Your task to perform on an android device: What's on my calendar today? Image 0: 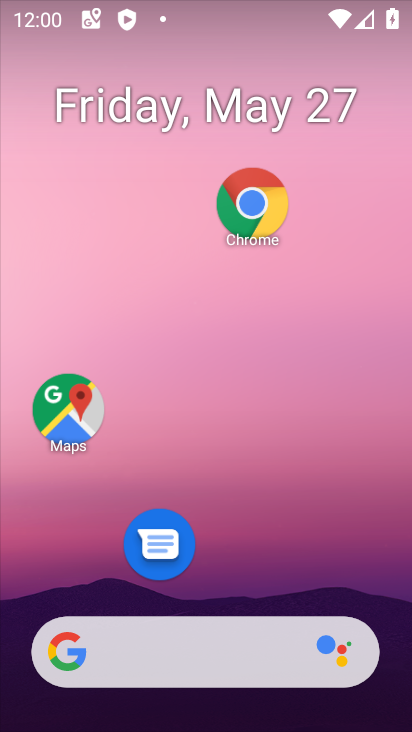
Step 0: click (3, 565)
Your task to perform on an android device: What's on my calendar today? Image 1: 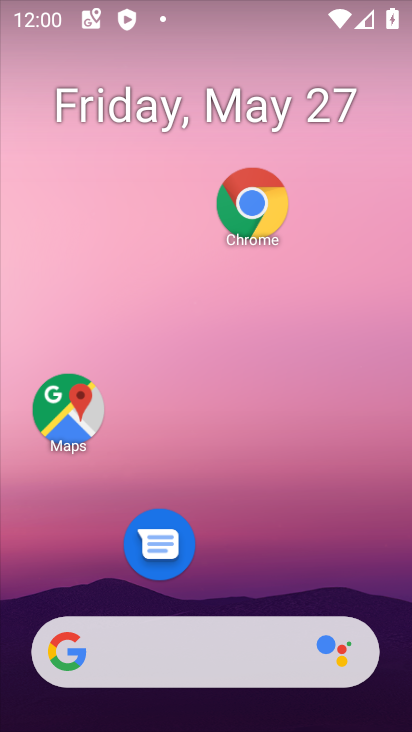
Step 1: drag from (234, 417) to (238, 56)
Your task to perform on an android device: What's on my calendar today? Image 2: 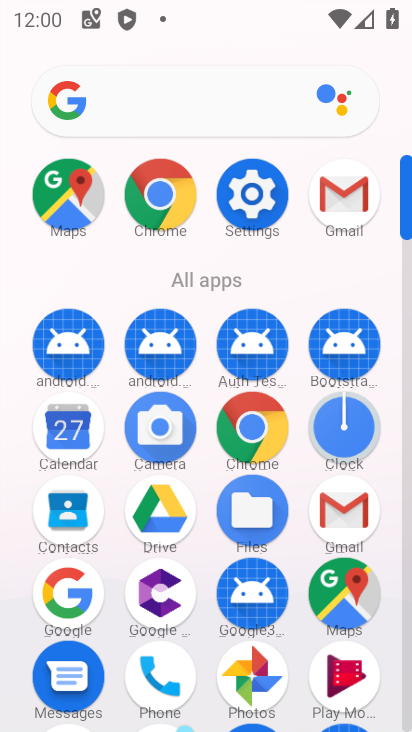
Step 2: click (80, 422)
Your task to perform on an android device: What's on my calendar today? Image 3: 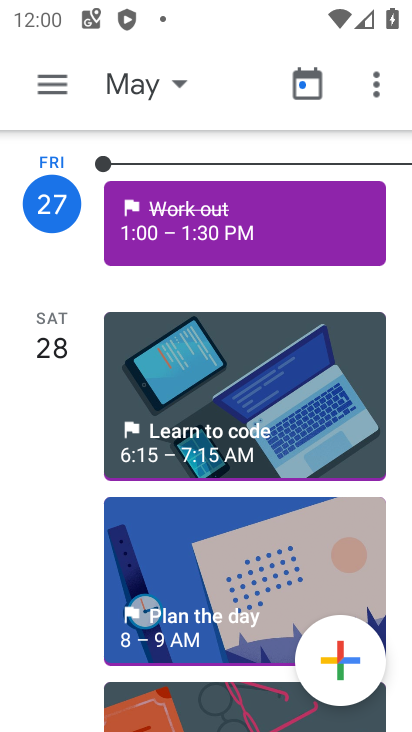
Step 3: press home button
Your task to perform on an android device: What's on my calendar today? Image 4: 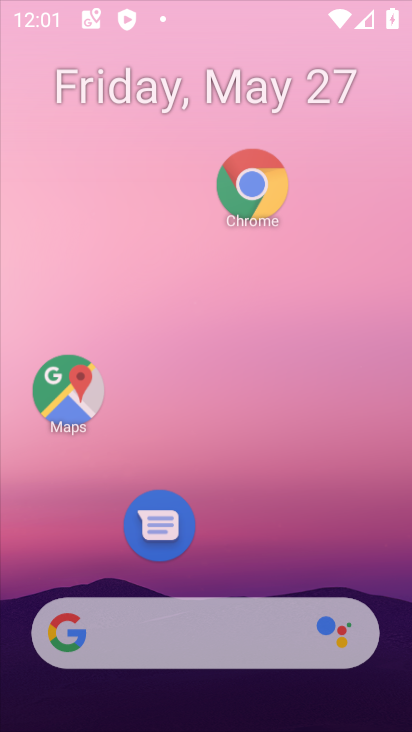
Step 4: drag from (318, 669) to (348, 199)
Your task to perform on an android device: What's on my calendar today? Image 5: 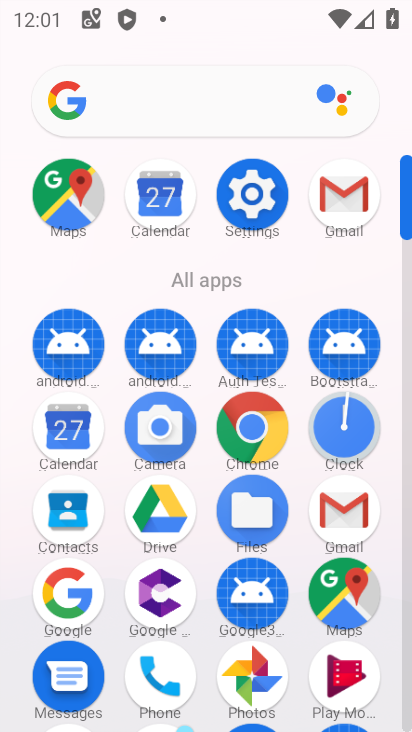
Step 5: click (79, 428)
Your task to perform on an android device: What's on my calendar today? Image 6: 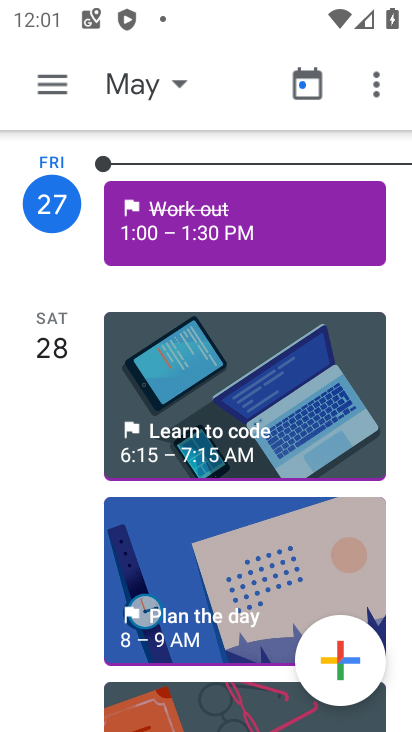
Step 6: click (151, 76)
Your task to perform on an android device: What's on my calendar today? Image 7: 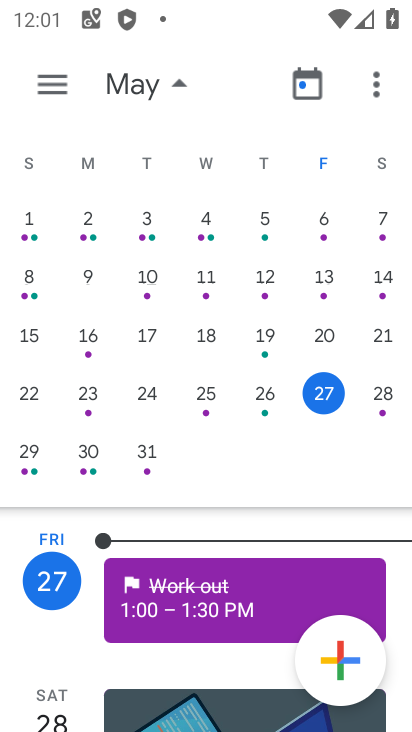
Step 7: drag from (359, 366) to (36, 304)
Your task to perform on an android device: What's on my calendar today? Image 8: 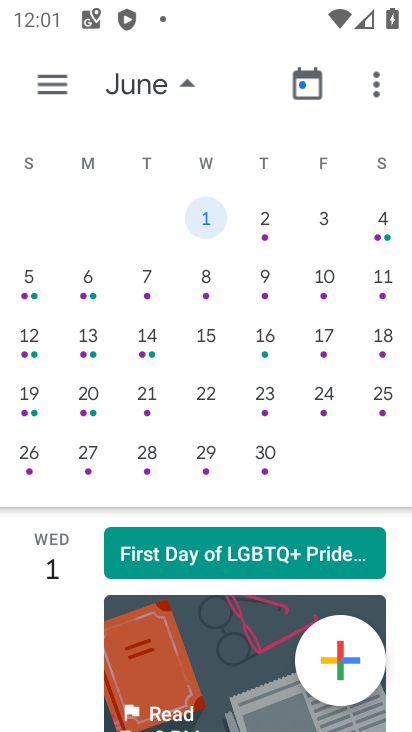
Step 8: drag from (49, 355) to (411, 168)
Your task to perform on an android device: What's on my calendar today? Image 9: 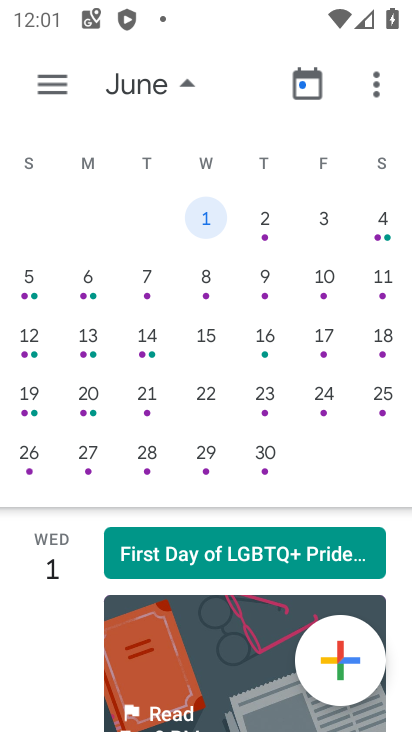
Step 9: drag from (39, 297) to (411, 432)
Your task to perform on an android device: What's on my calendar today? Image 10: 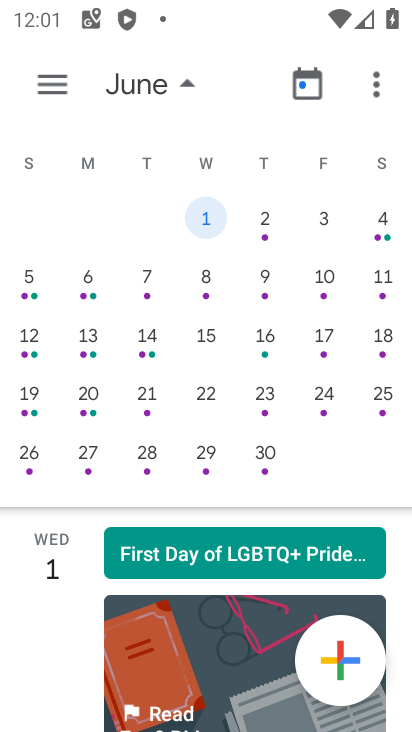
Step 10: drag from (13, 379) to (411, 297)
Your task to perform on an android device: What's on my calendar today? Image 11: 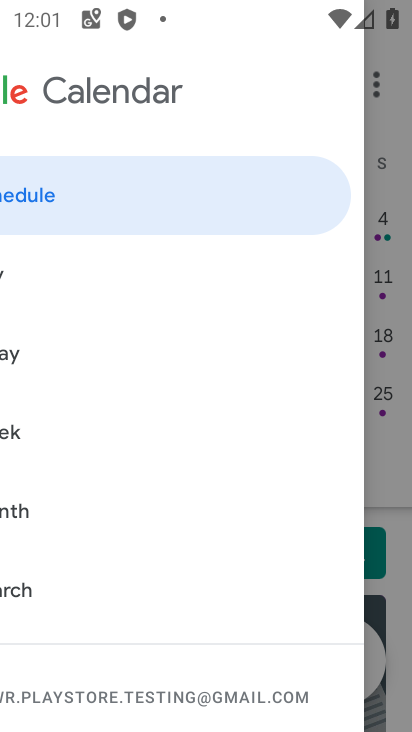
Step 11: press back button
Your task to perform on an android device: What's on my calendar today? Image 12: 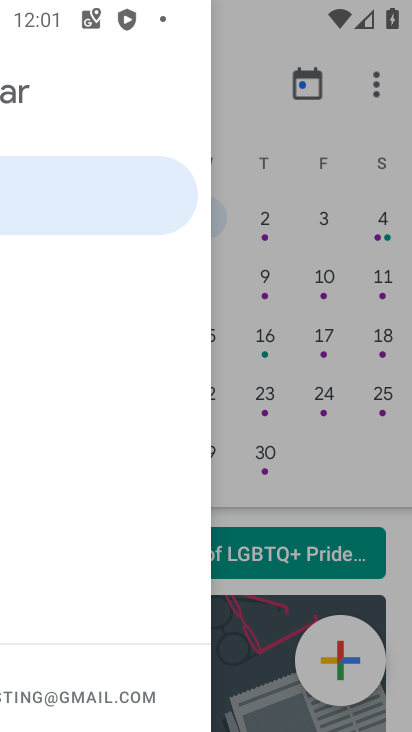
Step 12: drag from (411, 297) to (375, 275)
Your task to perform on an android device: What's on my calendar today? Image 13: 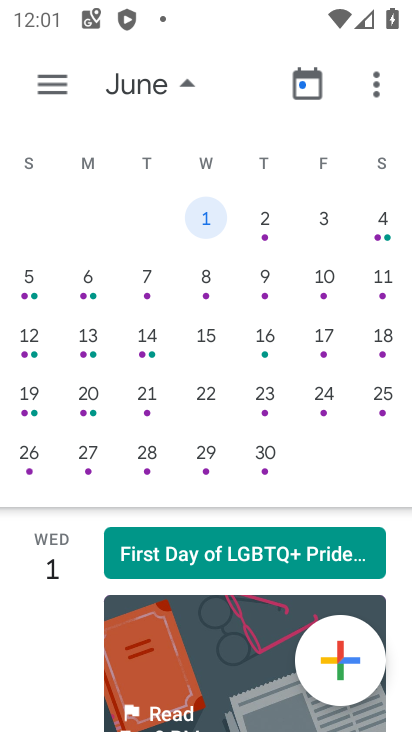
Step 13: drag from (28, 412) to (406, 240)
Your task to perform on an android device: What's on my calendar today? Image 14: 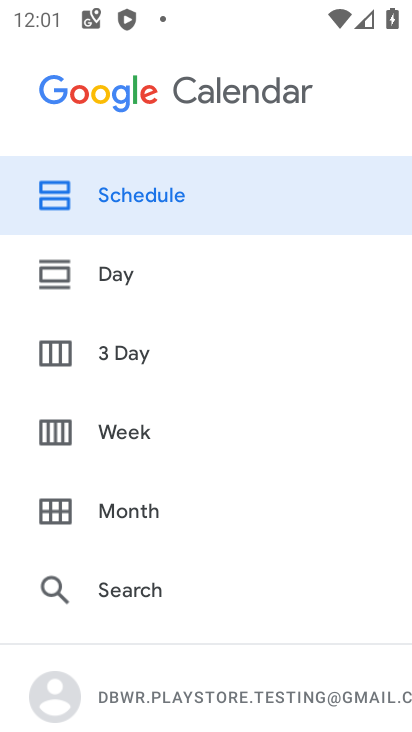
Step 14: press back button
Your task to perform on an android device: What's on my calendar today? Image 15: 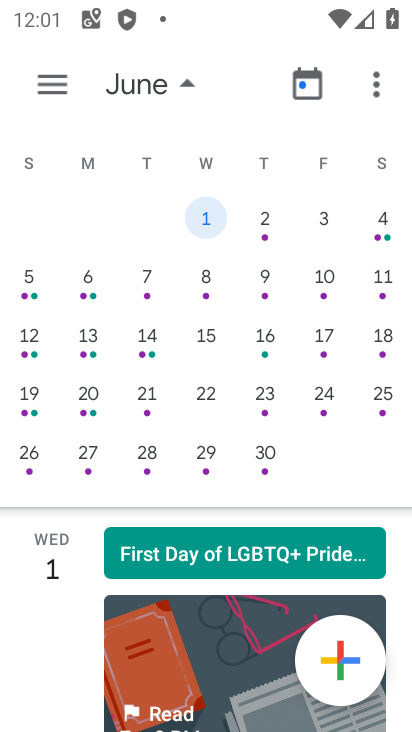
Step 15: drag from (23, 368) to (411, 295)
Your task to perform on an android device: What's on my calendar today? Image 16: 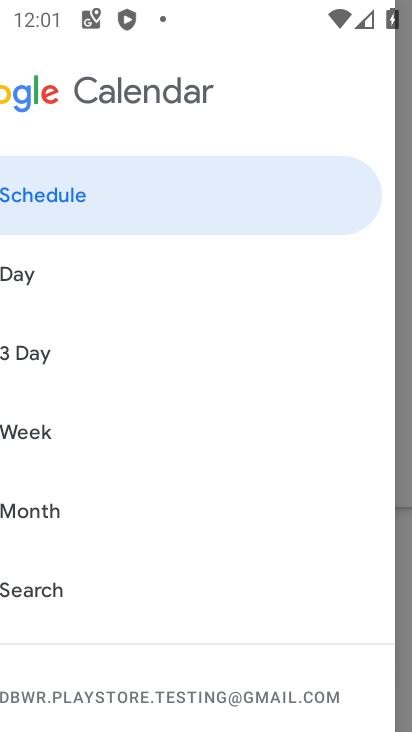
Step 16: press back button
Your task to perform on an android device: What's on my calendar today? Image 17: 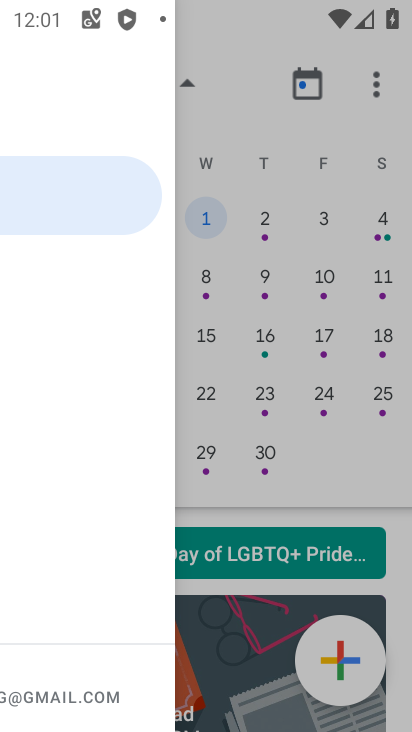
Step 17: drag from (411, 295) to (412, 456)
Your task to perform on an android device: What's on my calendar today? Image 18: 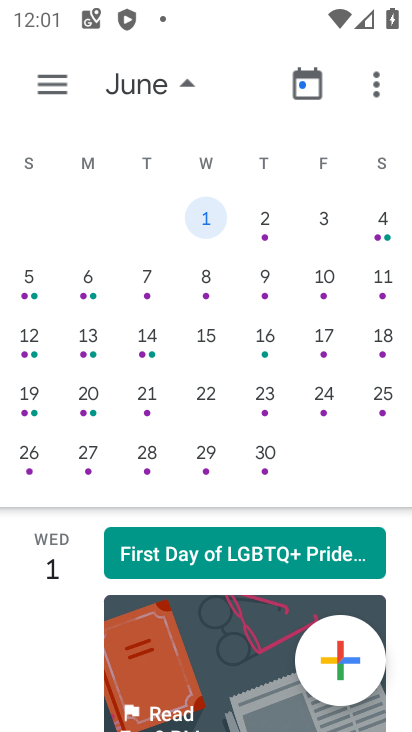
Step 18: drag from (142, 425) to (411, 429)
Your task to perform on an android device: What's on my calendar today? Image 19: 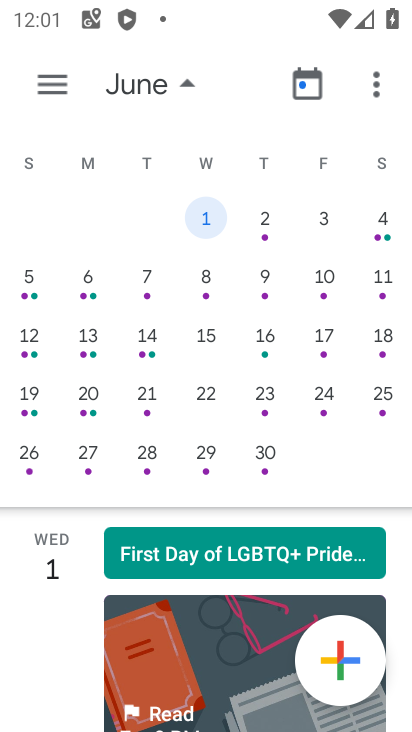
Step 19: drag from (90, 432) to (393, 351)
Your task to perform on an android device: What's on my calendar today? Image 20: 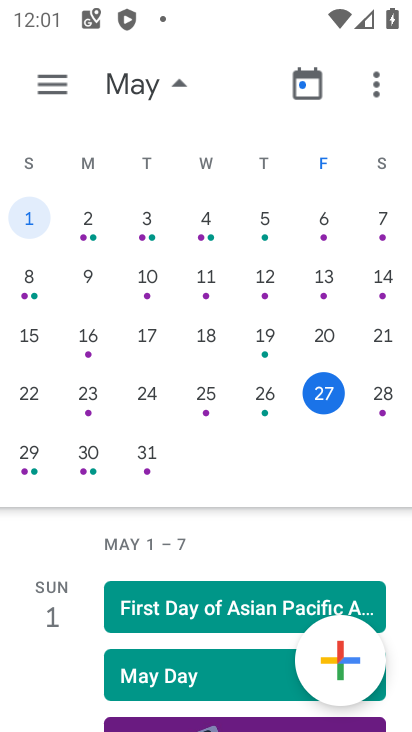
Step 20: click (324, 394)
Your task to perform on an android device: What's on my calendar today? Image 21: 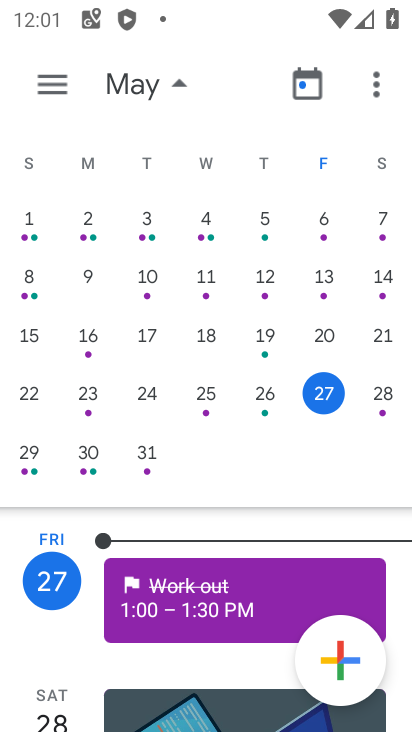
Step 21: task complete